Your task to perform on an android device: toggle pop-ups in chrome Image 0: 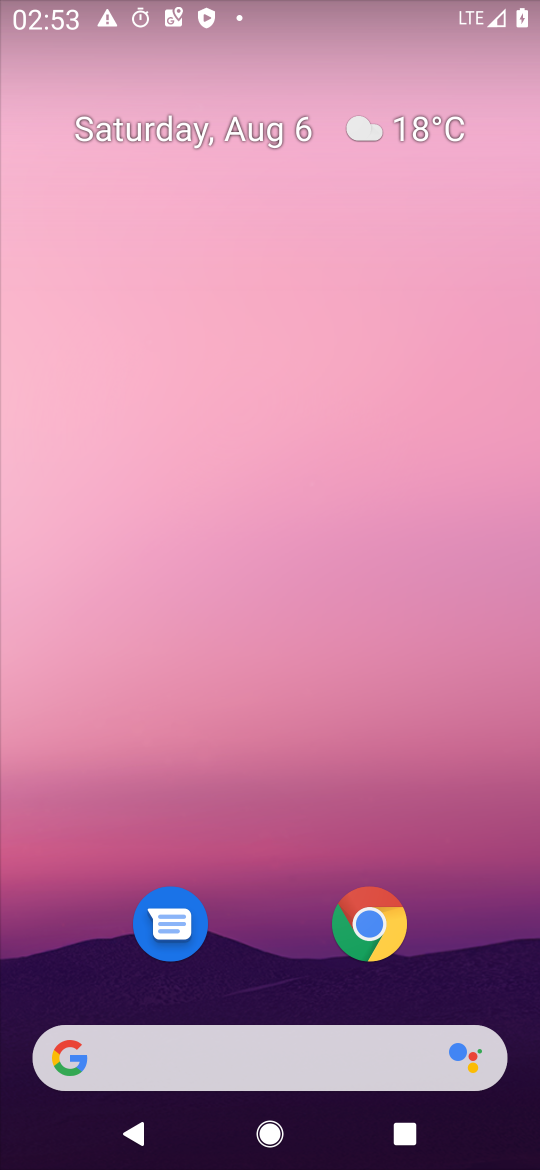
Step 0: drag from (340, 1047) to (340, 81)
Your task to perform on an android device: toggle pop-ups in chrome Image 1: 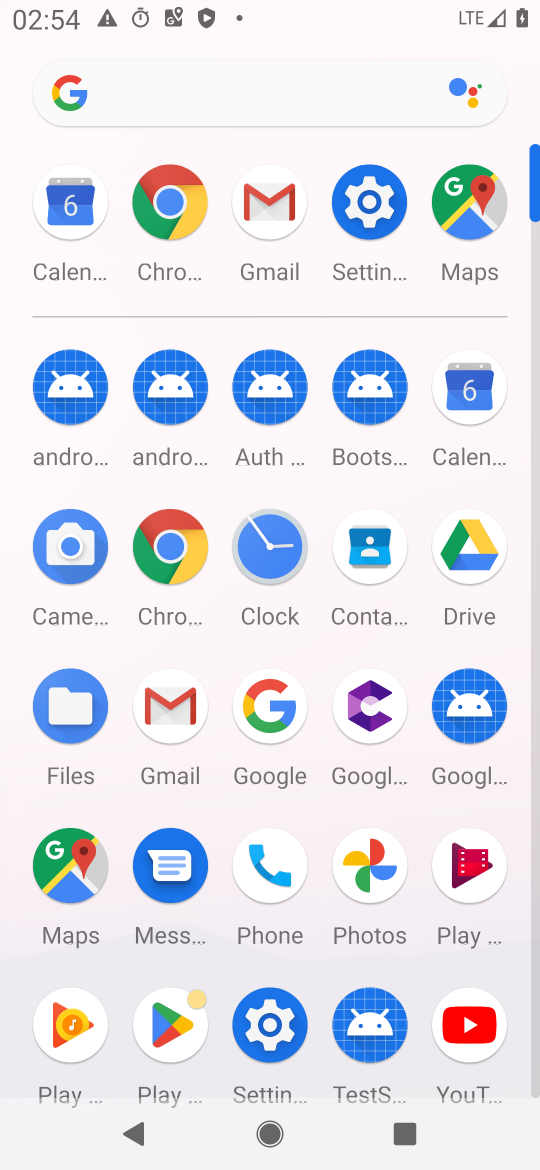
Step 1: click (179, 542)
Your task to perform on an android device: toggle pop-ups in chrome Image 2: 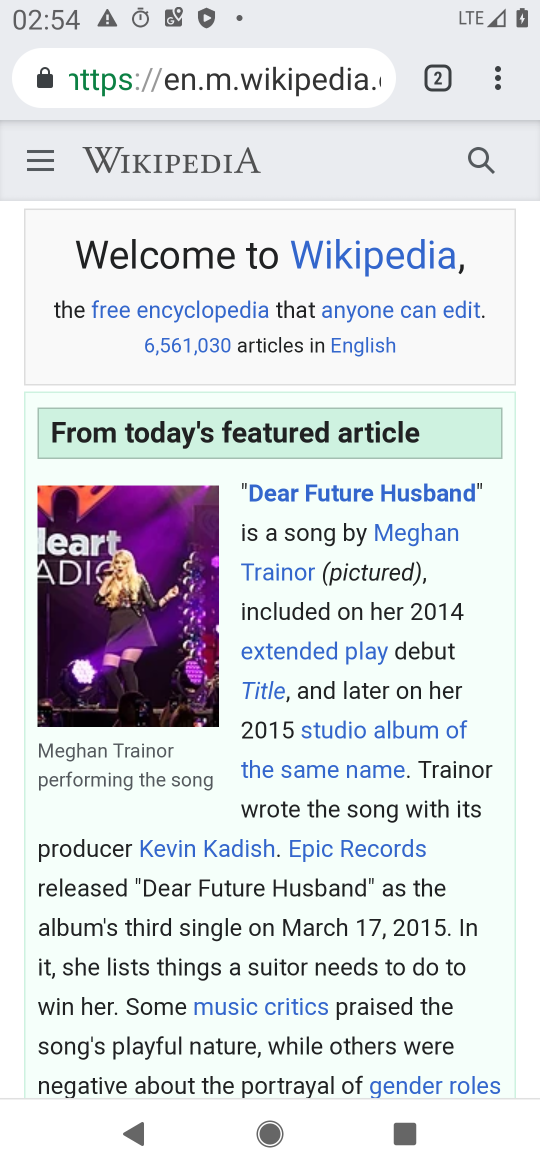
Step 2: drag from (498, 80) to (259, 948)
Your task to perform on an android device: toggle pop-ups in chrome Image 3: 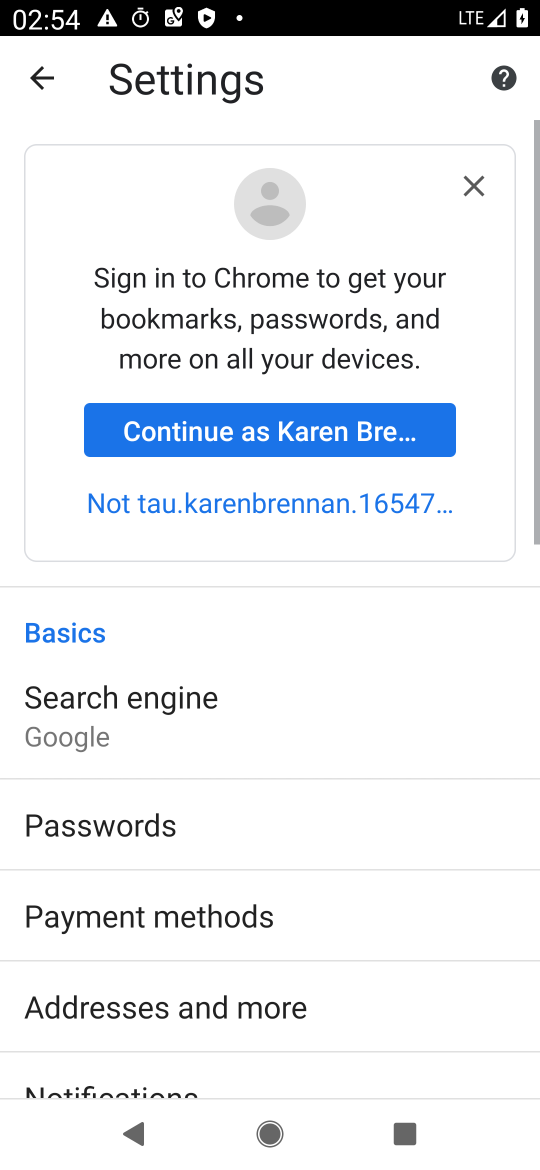
Step 3: drag from (249, 987) to (275, 311)
Your task to perform on an android device: toggle pop-ups in chrome Image 4: 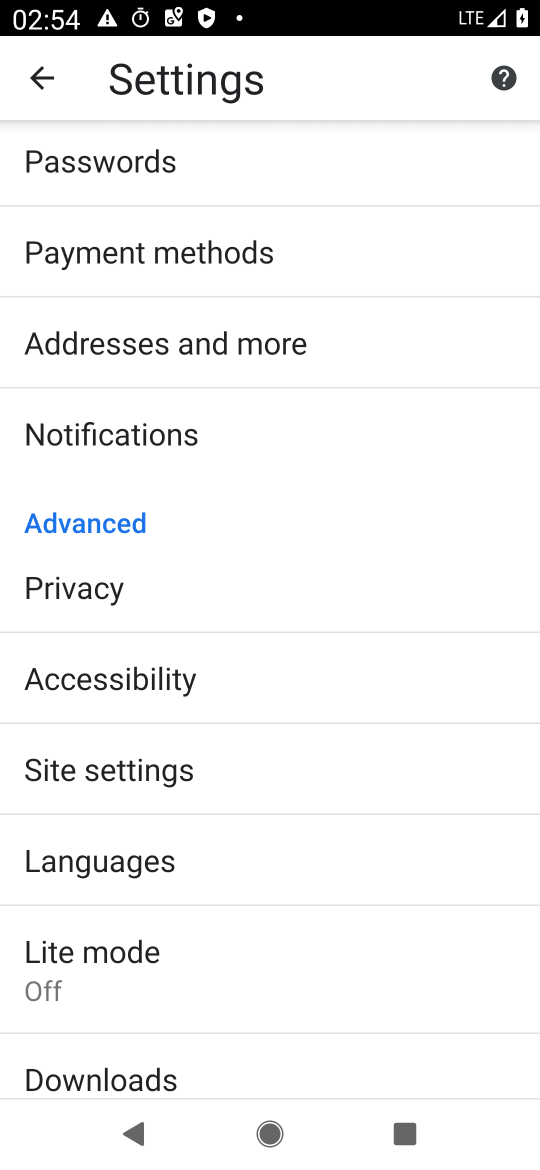
Step 4: click (144, 784)
Your task to perform on an android device: toggle pop-ups in chrome Image 5: 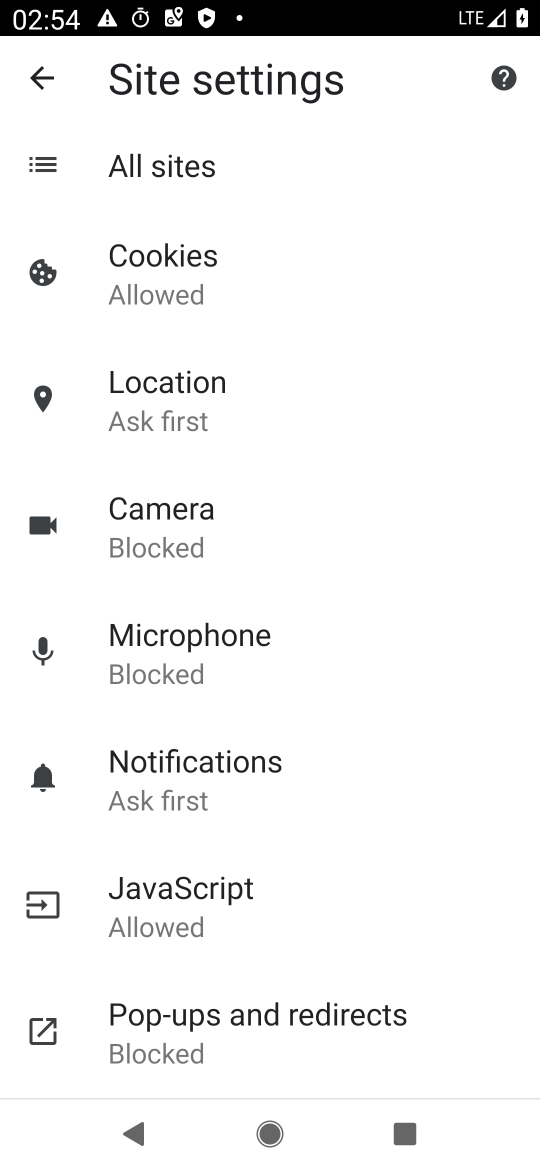
Step 5: click (207, 1034)
Your task to perform on an android device: toggle pop-ups in chrome Image 6: 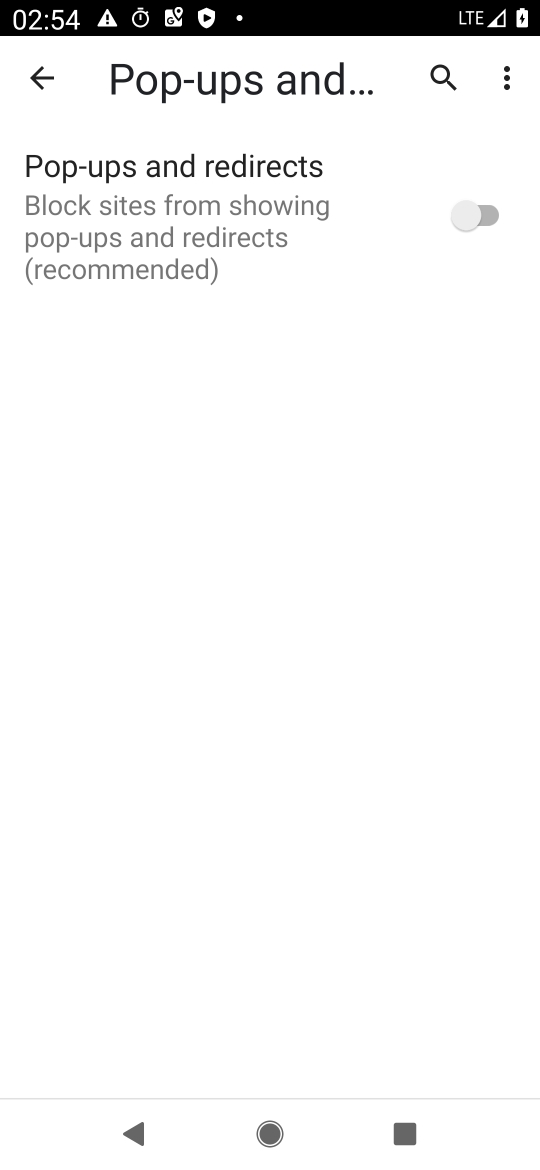
Step 6: click (477, 195)
Your task to perform on an android device: toggle pop-ups in chrome Image 7: 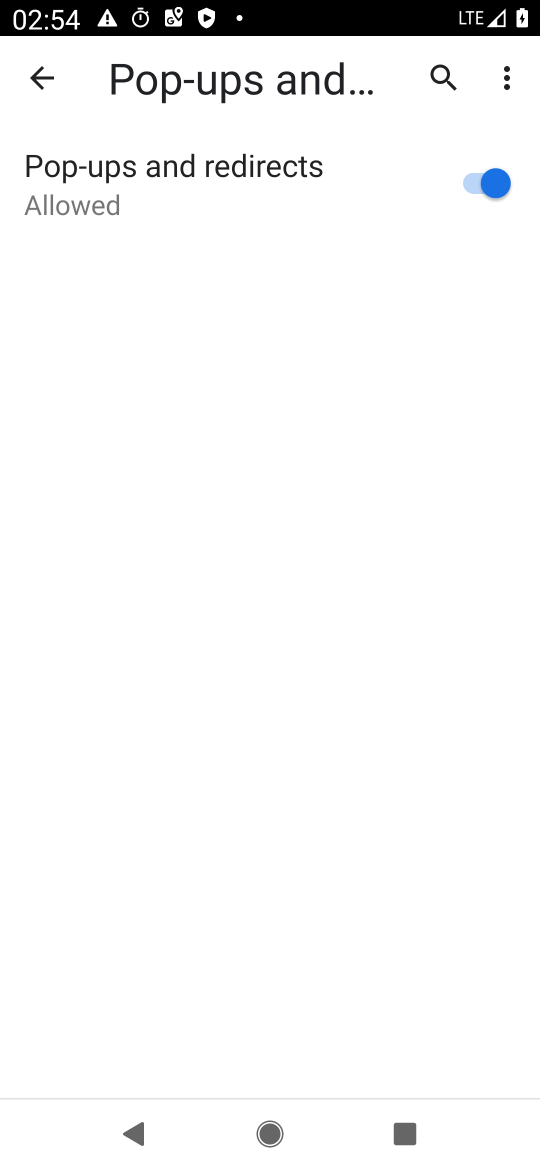
Step 7: task complete